Your task to perform on an android device: empty trash in the gmail app Image 0: 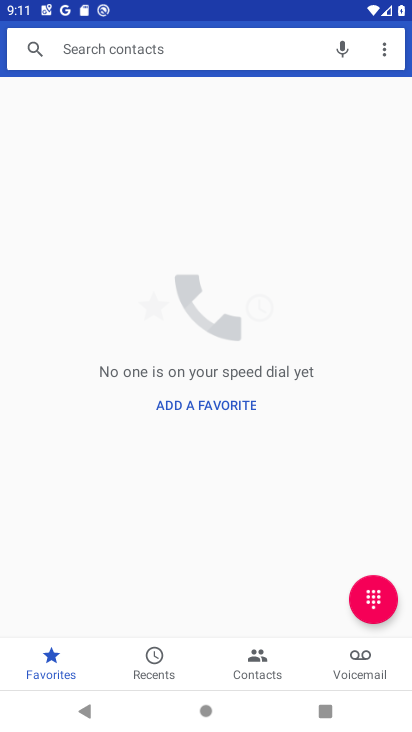
Step 0: drag from (296, 725) to (211, 162)
Your task to perform on an android device: empty trash in the gmail app Image 1: 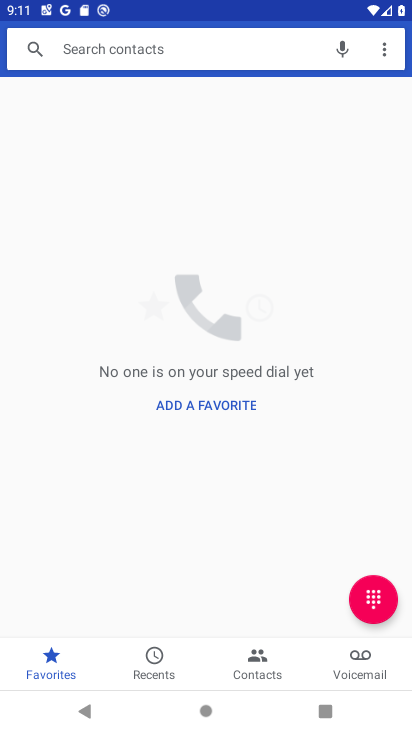
Step 1: press back button
Your task to perform on an android device: empty trash in the gmail app Image 2: 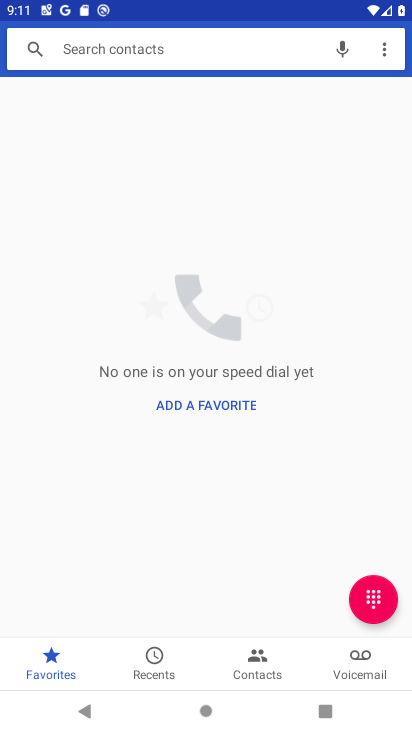
Step 2: press back button
Your task to perform on an android device: empty trash in the gmail app Image 3: 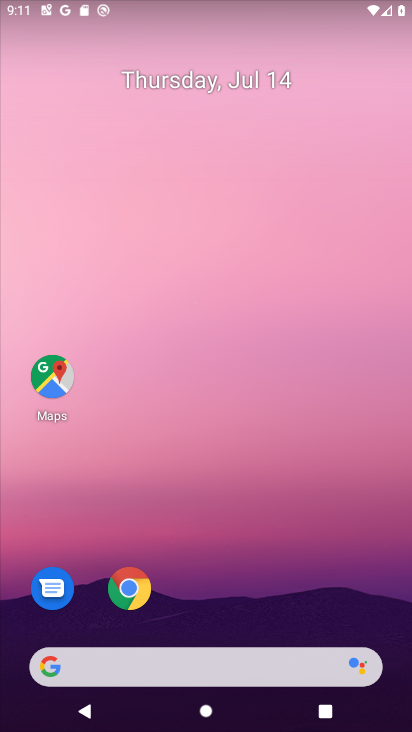
Step 3: drag from (275, 599) to (218, 122)
Your task to perform on an android device: empty trash in the gmail app Image 4: 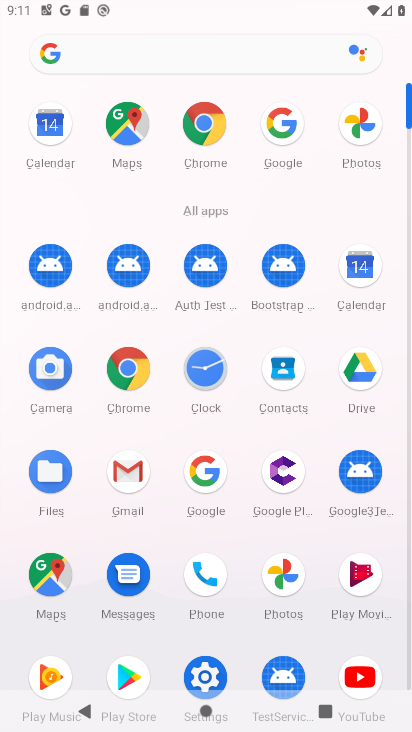
Step 4: click (107, 477)
Your task to perform on an android device: empty trash in the gmail app Image 5: 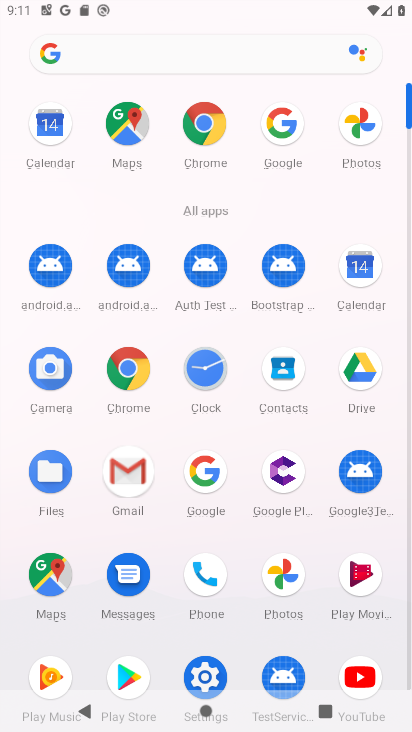
Step 5: click (123, 481)
Your task to perform on an android device: empty trash in the gmail app Image 6: 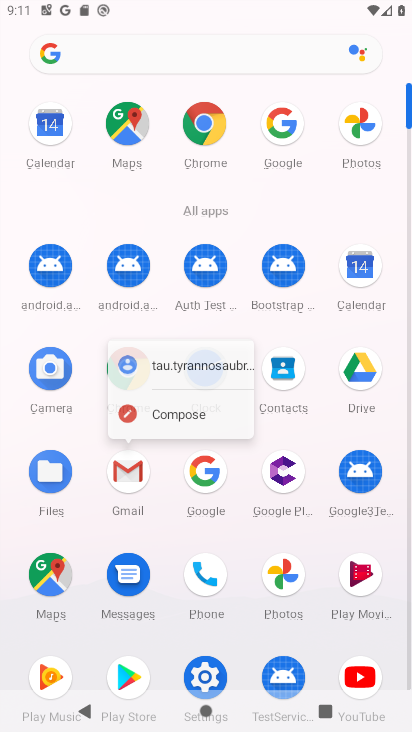
Step 6: click (123, 482)
Your task to perform on an android device: empty trash in the gmail app Image 7: 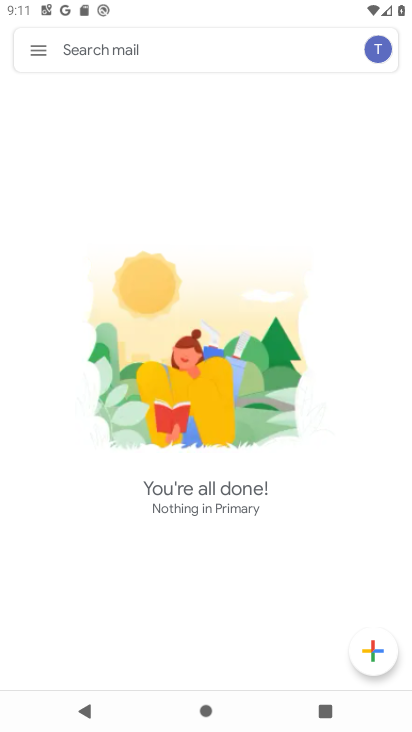
Step 7: click (118, 486)
Your task to perform on an android device: empty trash in the gmail app Image 8: 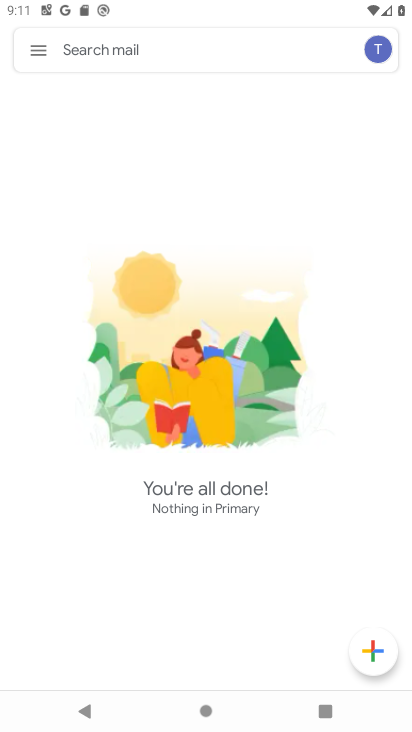
Step 8: click (38, 47)
Your task to perform on an android device: empty trash in the gmail app Image 9: 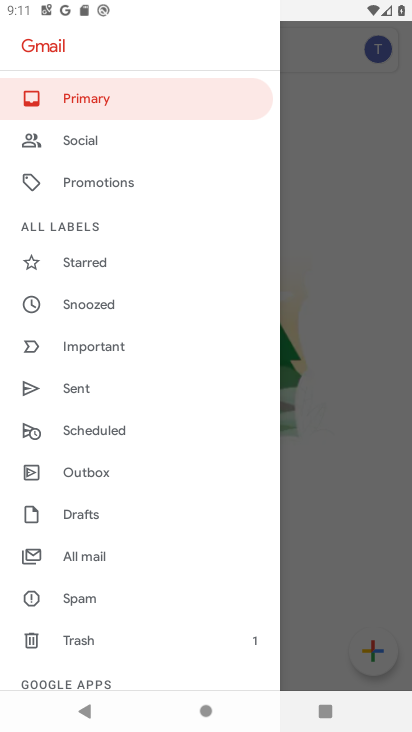
Step 9: click (80, 637)
Your task to perform on an android device: empty trash in the gmail app Image 10: 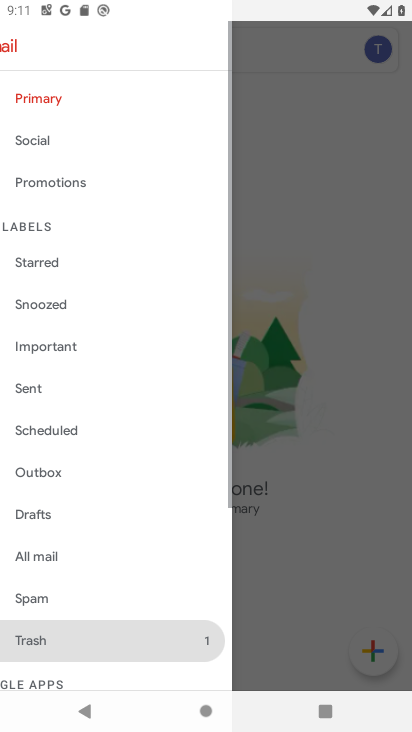
Step 10: click (79, 637)
Your task to perform on an android device: empty trash in the gmail app Image 11: 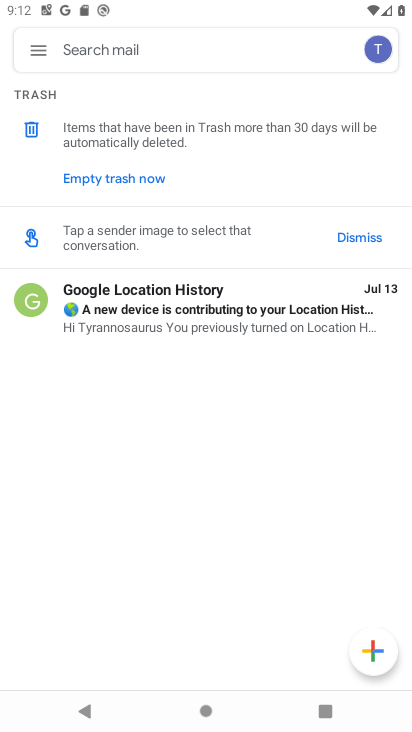
Step 11: click (29, 49)
Your task to perform on an android device: empty trash in the gmail app Image 12: 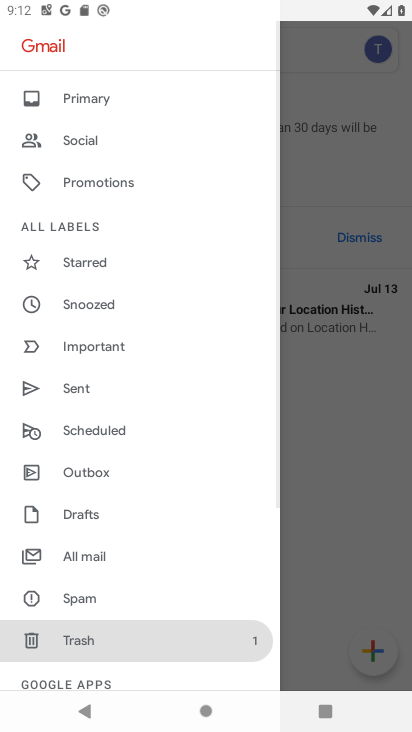
Step 12: click (101, 637)
Your task to perform on an android device: empty trash in the gmail app Image 13: 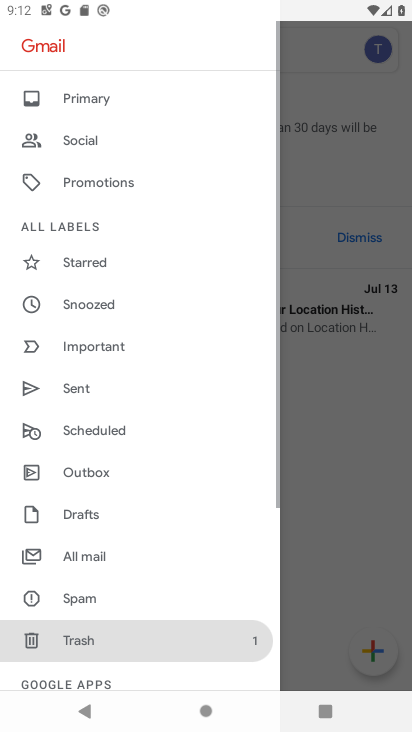
Step 13: click (101, 637)
Your task to perform on an android device: empty trash in the gmail app Image 14: 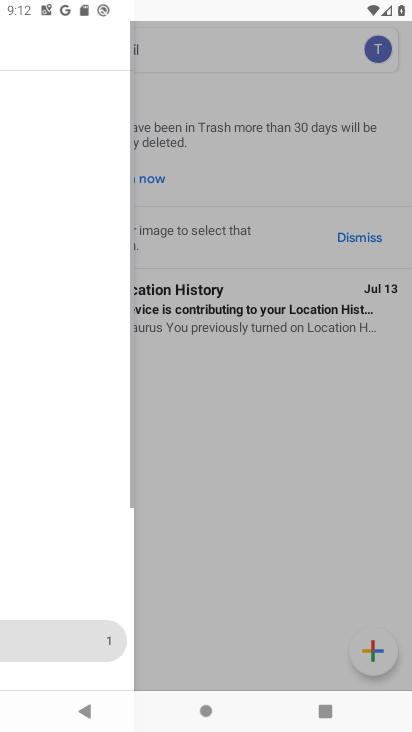
Step 14: click (106, 642)
Your task to perform on an android device: empty trash in the gmail app Image 15: 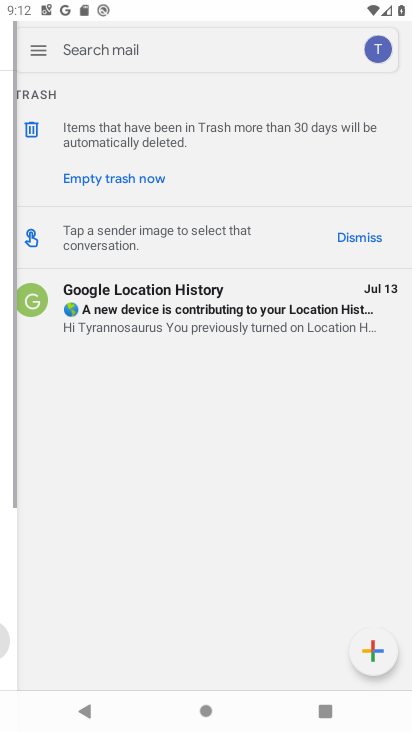
Step 15: click (106, 642)
Your task to perform on an android device: empty trash in the gmail app Image 16: 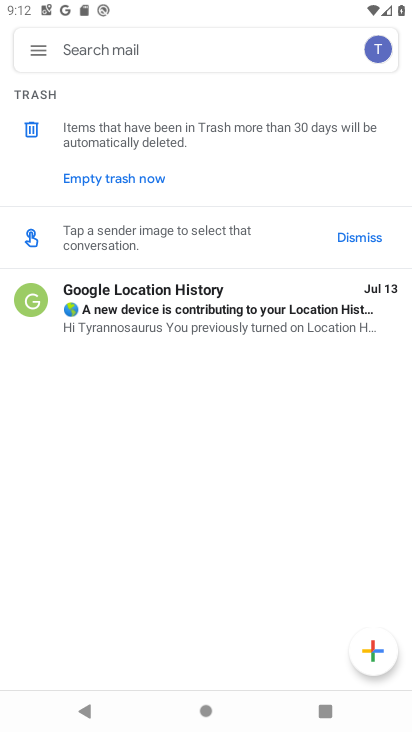
Step 16: task complete